Your task to perform on an android device: see creations saved in the google photos Image 0: 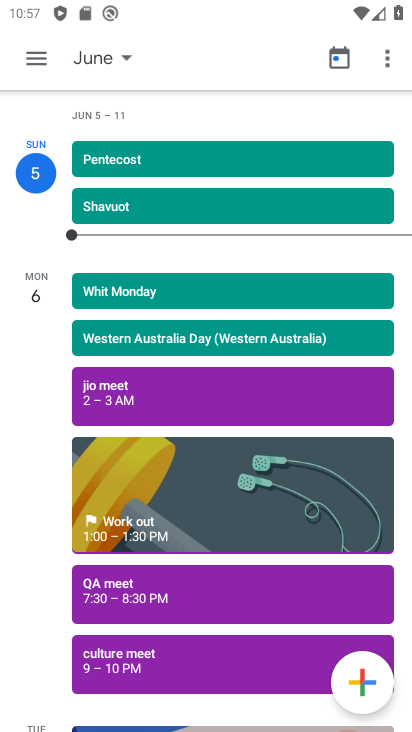
Step 0: press home button
Your task to perform on an android device: see creations saved in the google photos Image 1: 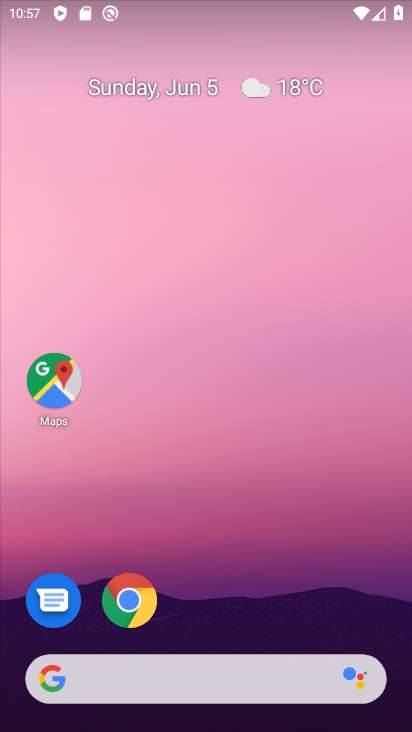
Step 1: drag from (166, 631) to (334, 133)
Your task to perform on an android device: see creations saved in the google photos Image 2: 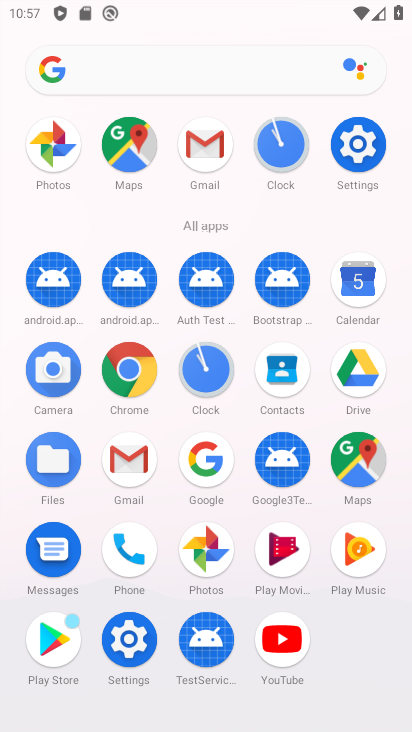
Step 2: click (211, 562)
Your task to perform on an android device: see creations saved in the google photos Image 3: 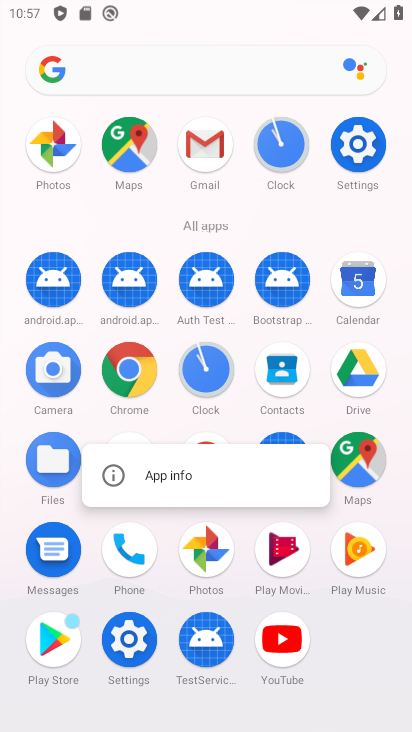
Step 3: click (208, 556)
Your task to perform on an android device: see creations saved in the google photos Image 4: 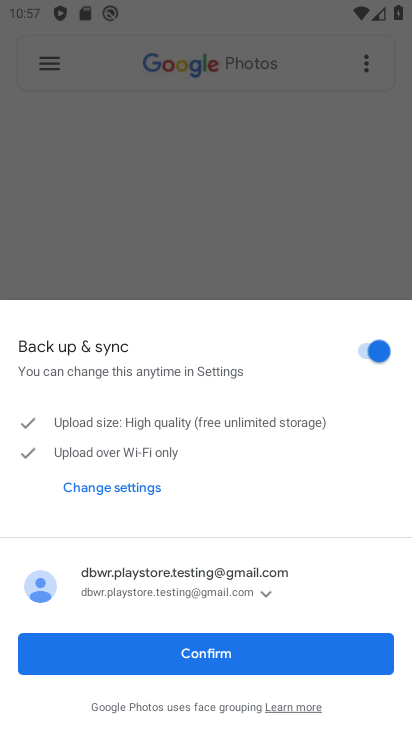
Step 4: click (229, 653)
Your task to perform on an android device: see creations saved in the google photos Image 5: 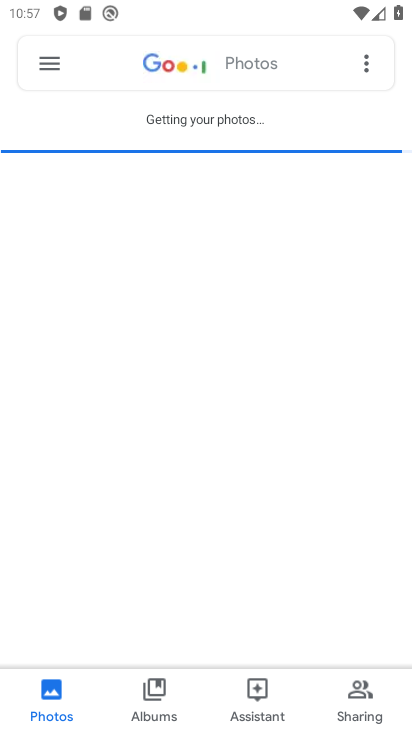
Step 5: click (150, 52)
Your task to perform on an android device: see creations saved in the google photos Image 6: 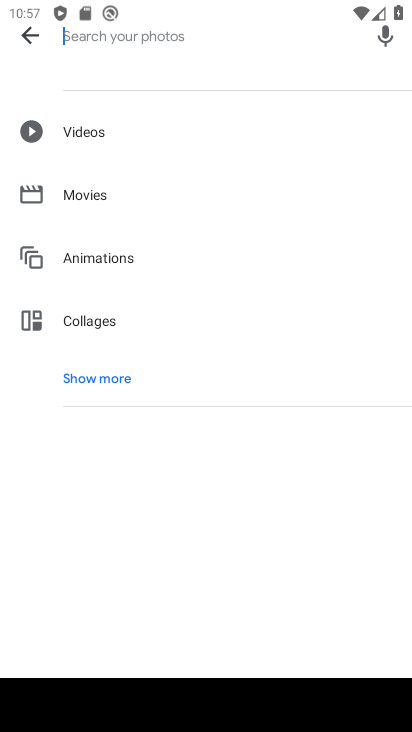
Step 6: click (91, 367)
Your task to perform on an android device: see creations saved in the google photos Image 7: 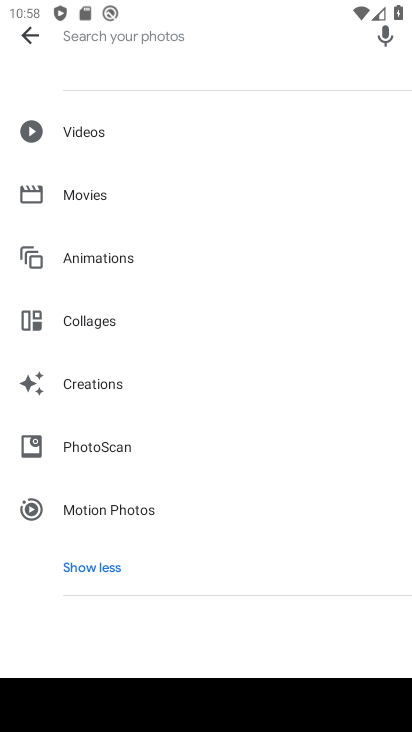
Step 7: click (112, 379)
Your task to perform on an android device: see creations saved in the google photos Image 8: 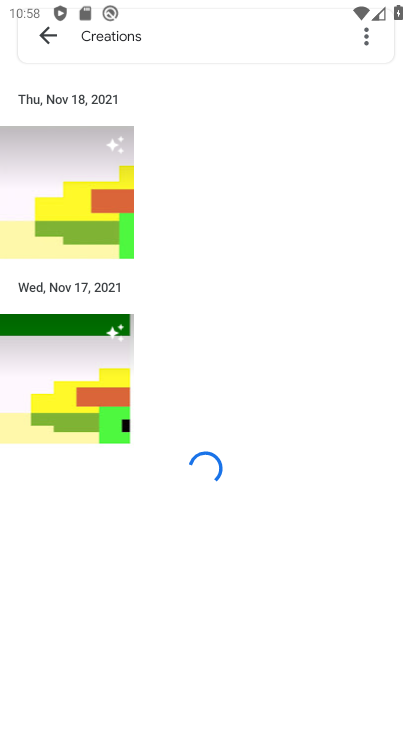
Step 8: task complete